Your task to perform on an android device: see creations saved in the google photos Image 0: 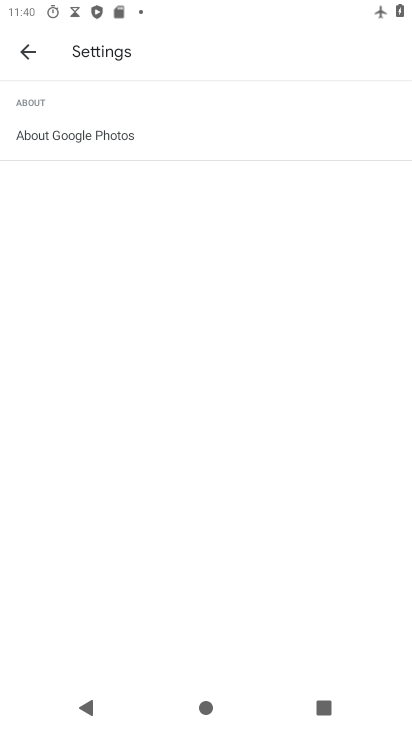
Step 0: press home button
Your task to perform on an android device: see creations saved in the google photos Image 1: 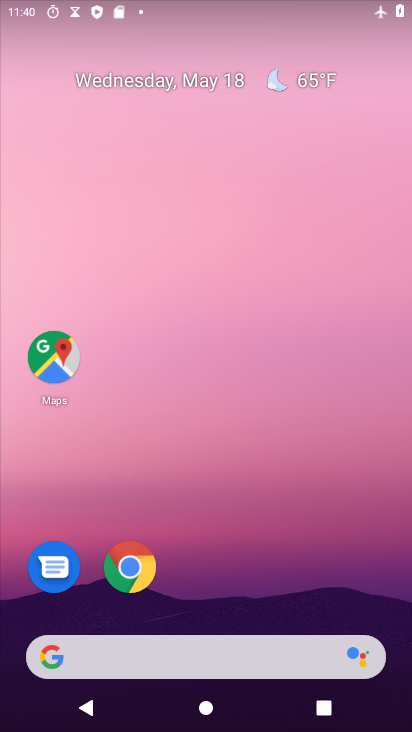
Step 1: drag from (257, 576) to (269, 94)
Your task to perform on an android device: see creations saved in the google photos Image 2: 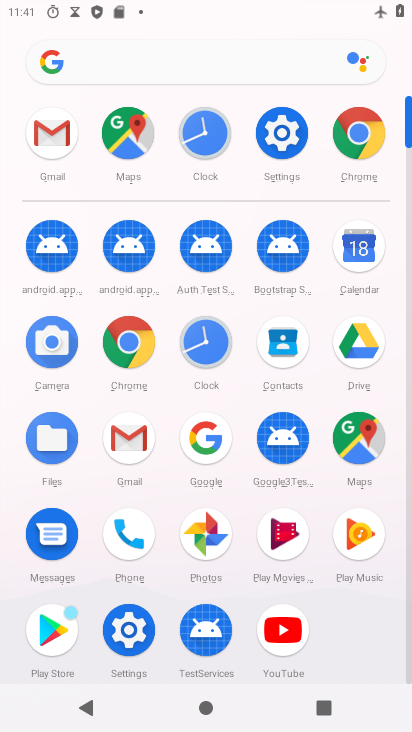
Step 2: click (207, 532)
Your task to perform on an android device: see creations saved in the google photos Image 3: 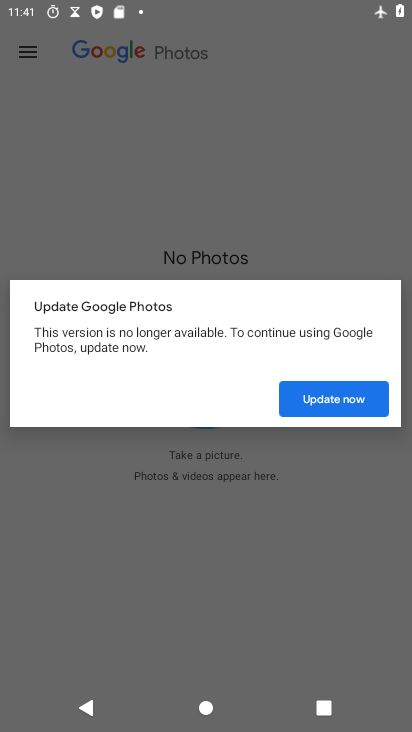
Step 3: click (350, 403)
Your task to perform on an android device: see creations saved in the google photos Image 4: 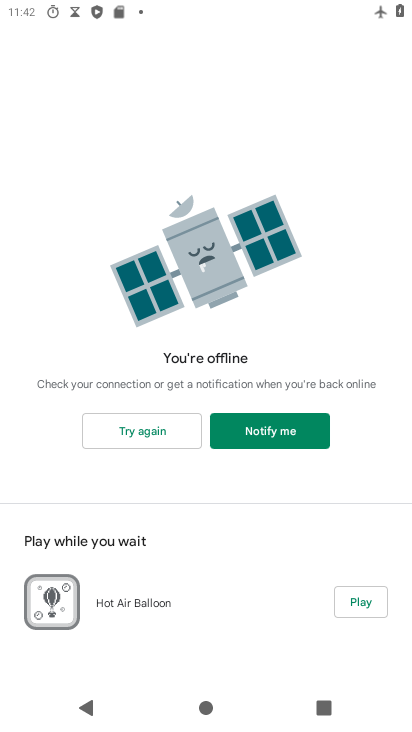
Step 4: click (144, 419)
Your task to perform on an android device: see creations saved in the google photos Image 5: 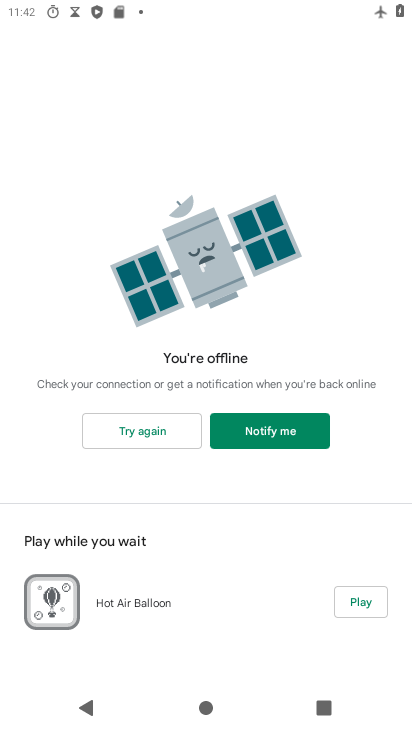
Step 5: task complete